Your task to perform on an android device: turn off picture-in-picture Image 0: 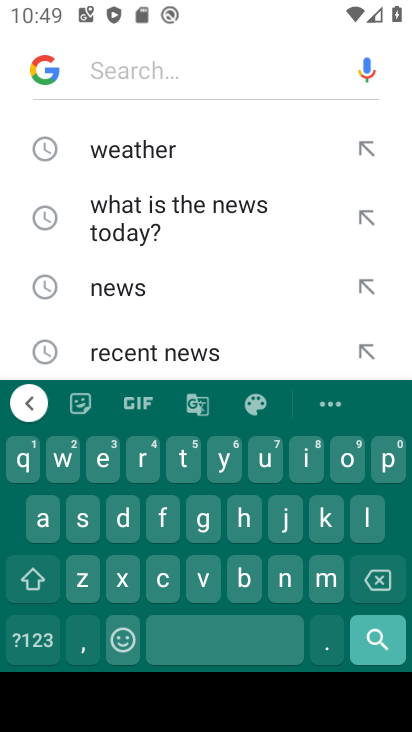
Step 0: press home button
Your task to perform on an android device: turn off picture-in-picture Image 1: 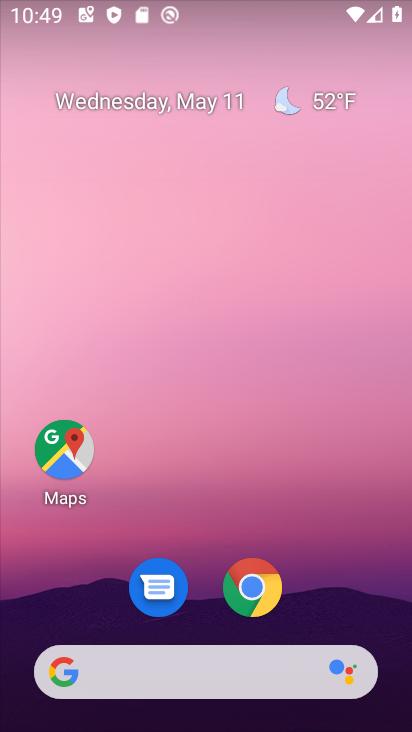
Step 1: drag from (208, 694) to (334, 135)
Your task to perform on an android device: turn off picture-in-picture Image 2: 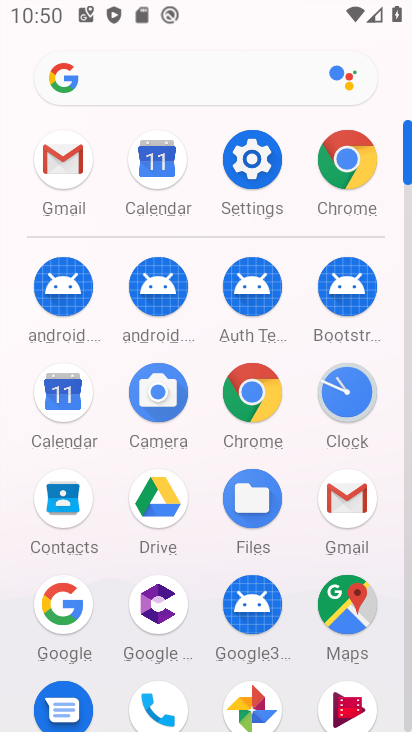
Step 2: click (261, 174)
Your task to perform on an android device: turn off picture-in-picture Image 3: 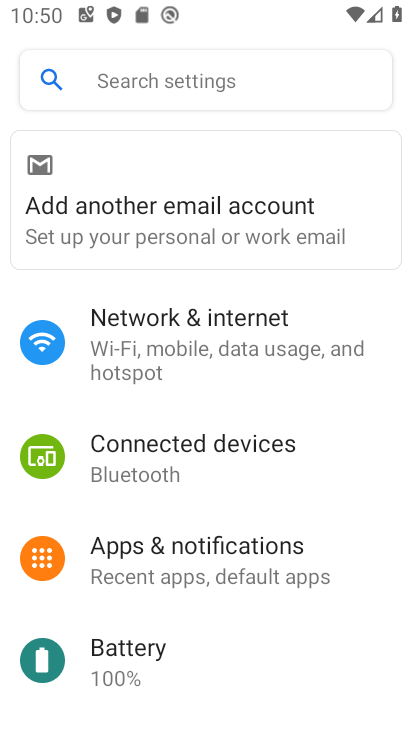
Step 3: click (186, 89)
Your task to perform on an android device: turn off picture-in-picture Image 4: 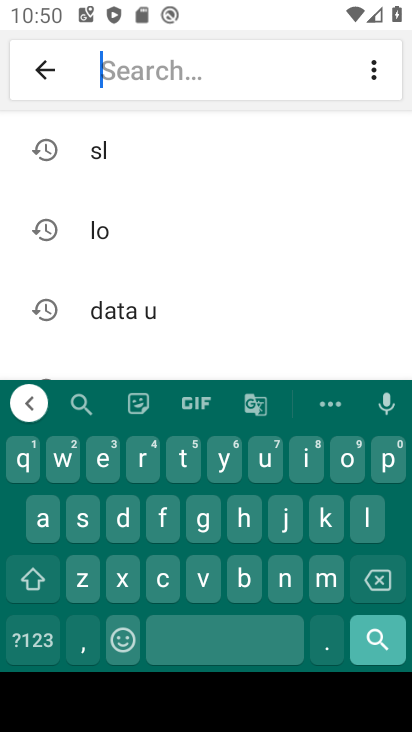
Step 4: click (384, 467)
Your task to perform on an android device: turn off picture-in-picture Image 5: 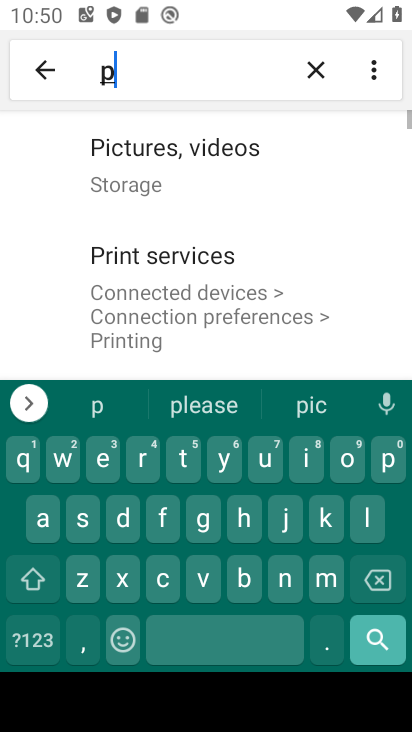
Step 5: click (308, 465)
Your task to perform on an android device: turn off picture-in-picture Image 6: 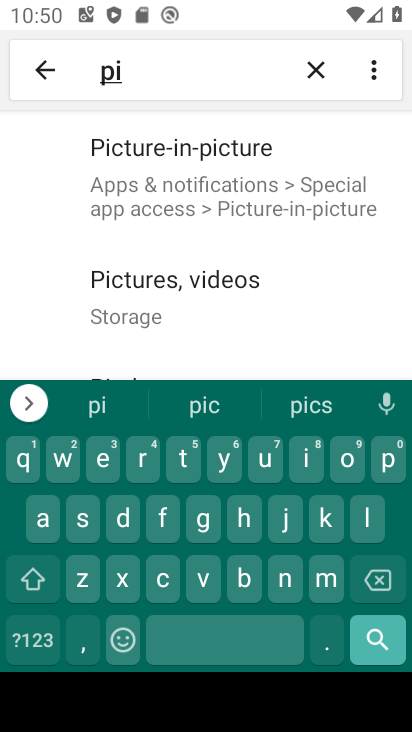
Step 6: click (249, 189)
Your task to perform on an android device: turn off picture-in-picture Image 7: 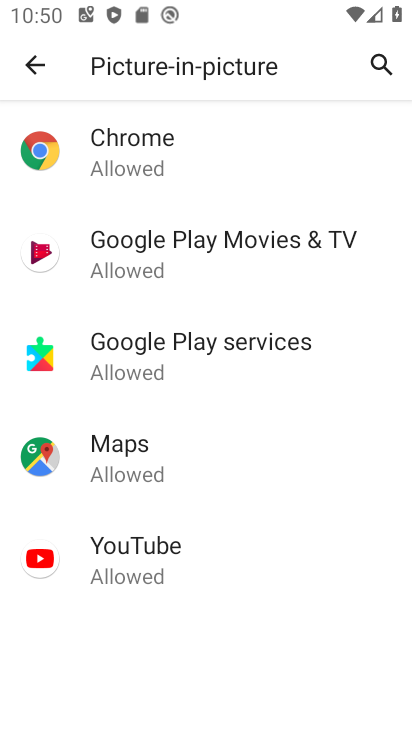
Step 7: task complete